Your task to perform on an android device: Open sound settings Image 0: 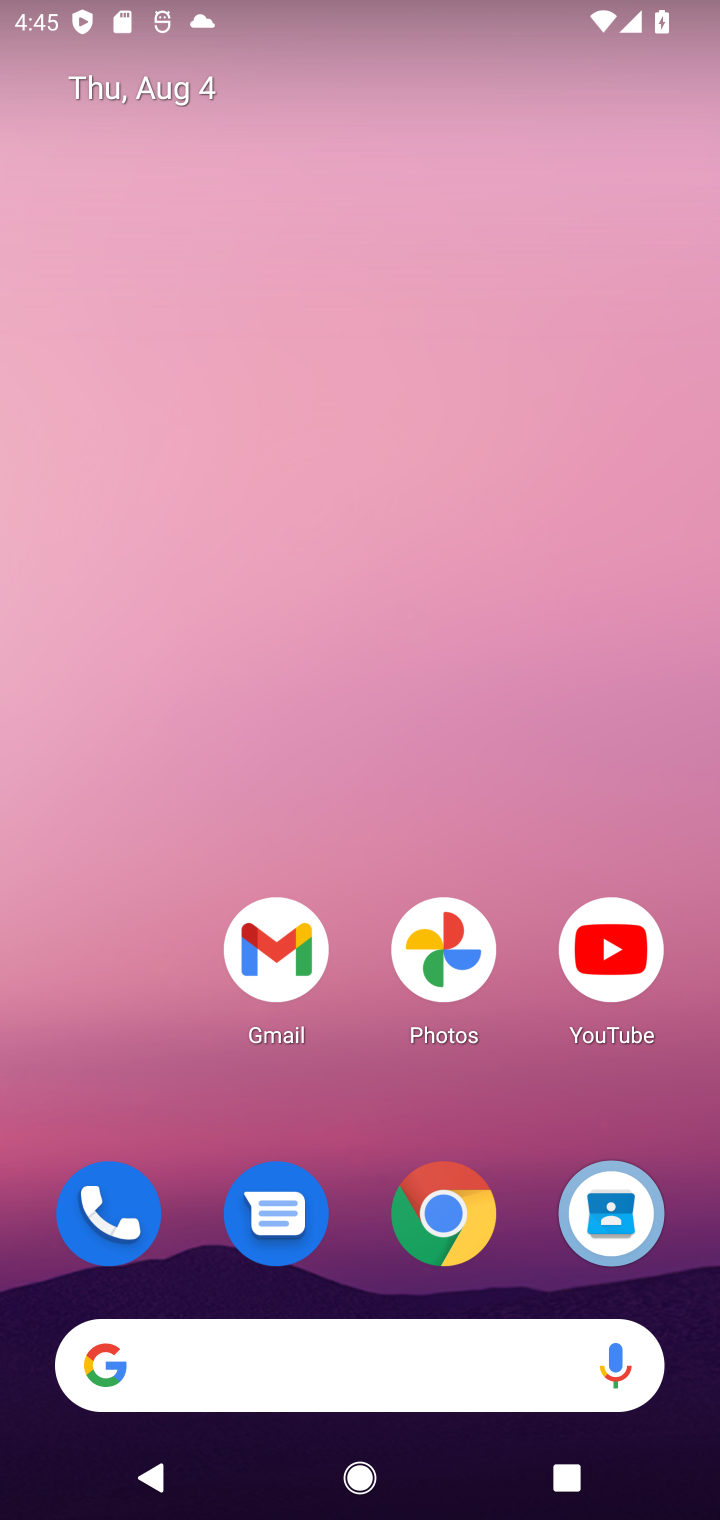
Step 0: drag from (256, 1387) to (453, 366)
Your task to perform on an android device: Open sound settings Image 1: 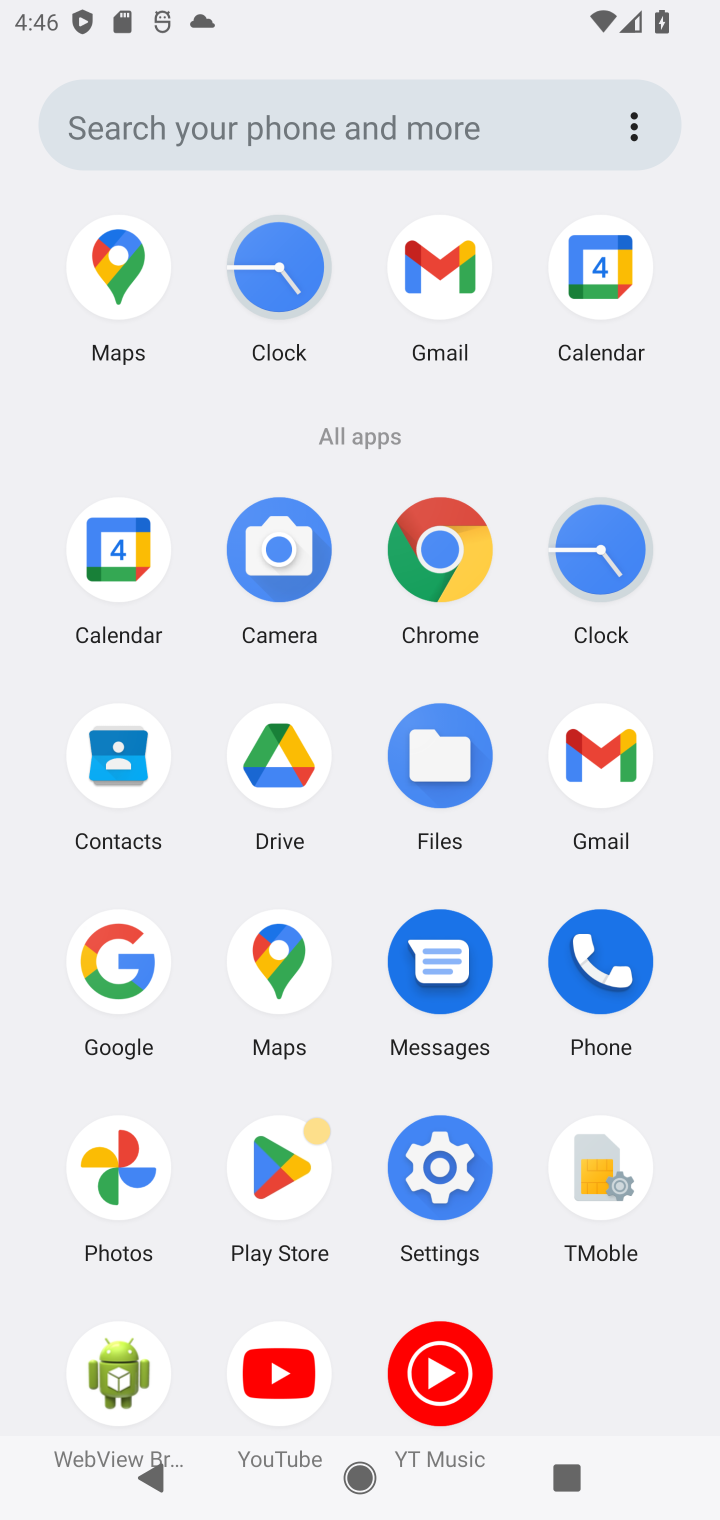
Step 1: click (437, 1163)
Your task to perform on an android device: Open sound settings Image 2: 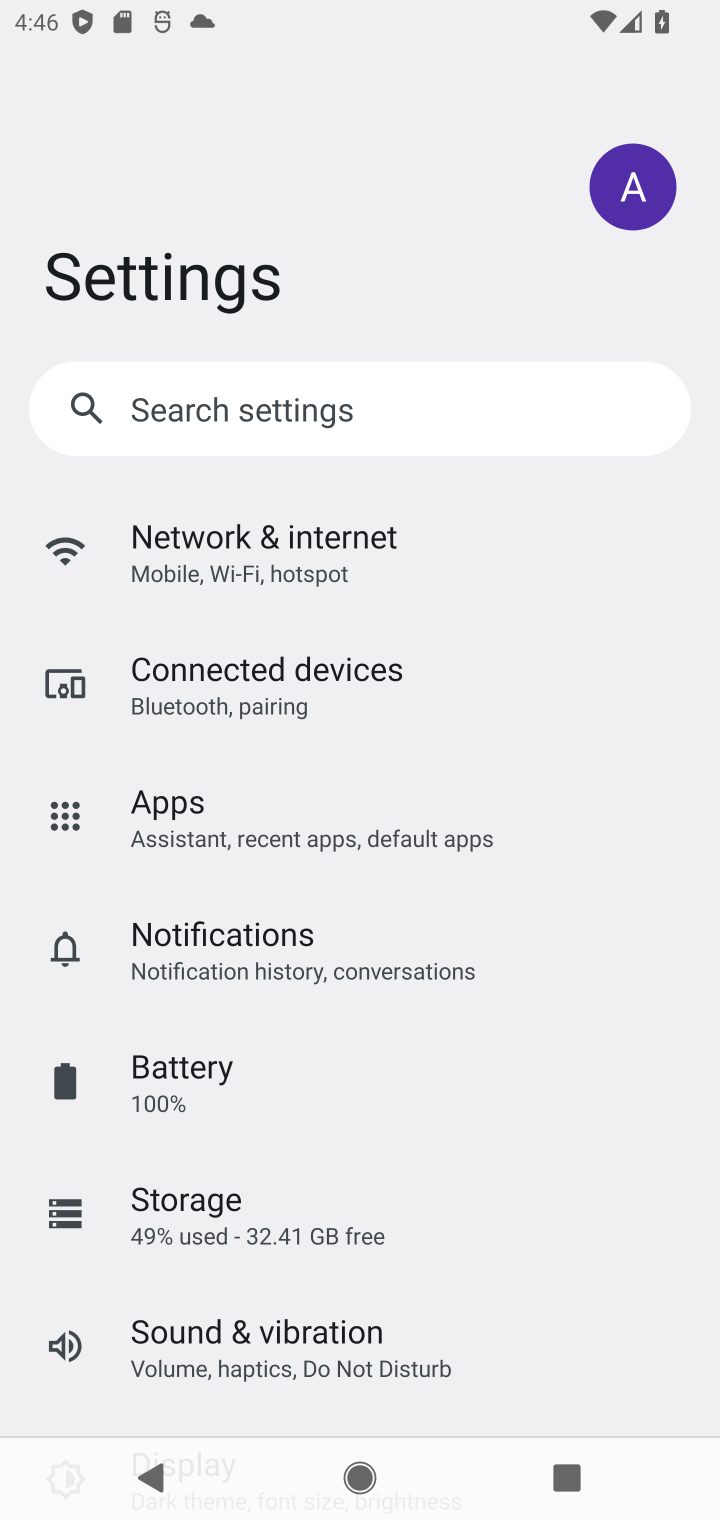
Step 2: drag from (243, 1180) to (236, 761)
Your task to perform on an android device: Open sound settings Image 3: 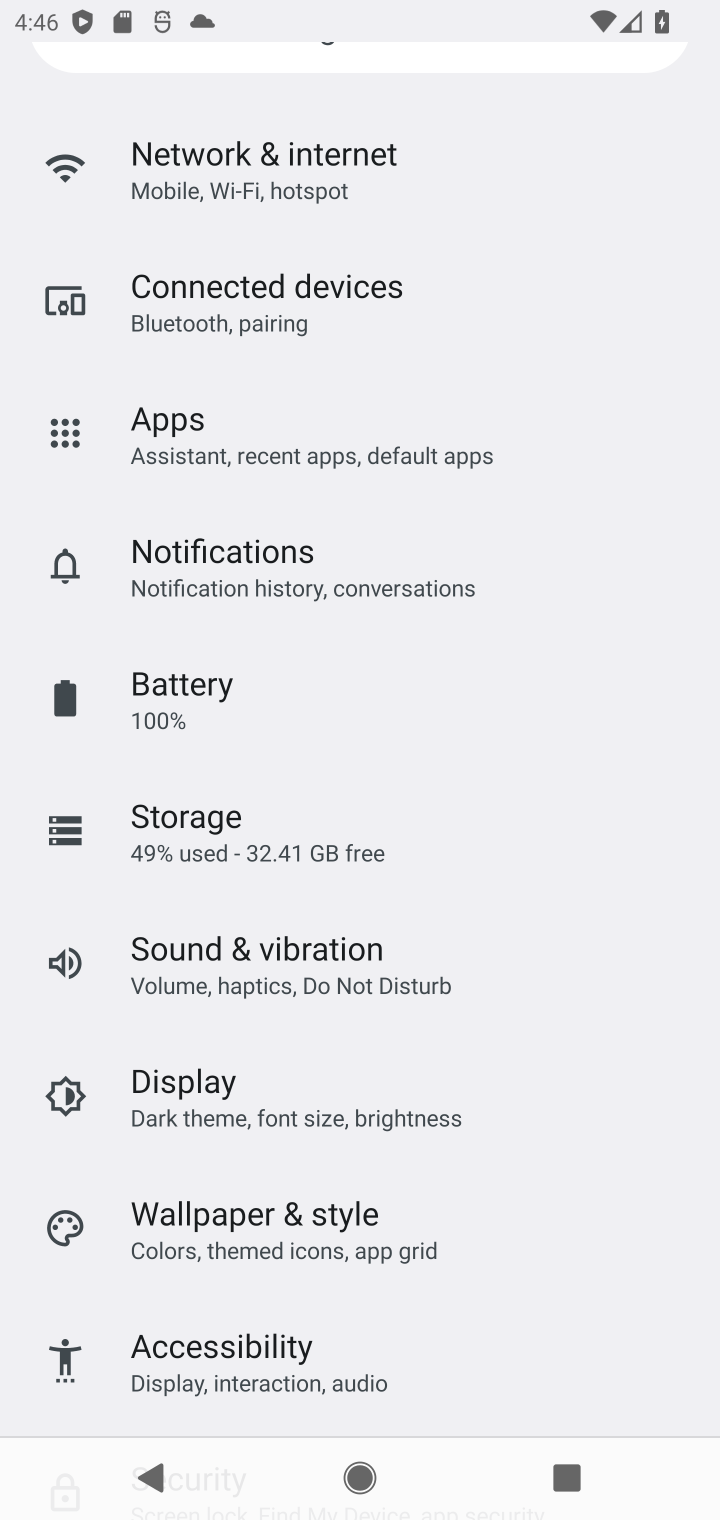
Step 3: click (305, 982)
Your task to perform on an android device: Open sound settings Image 4: 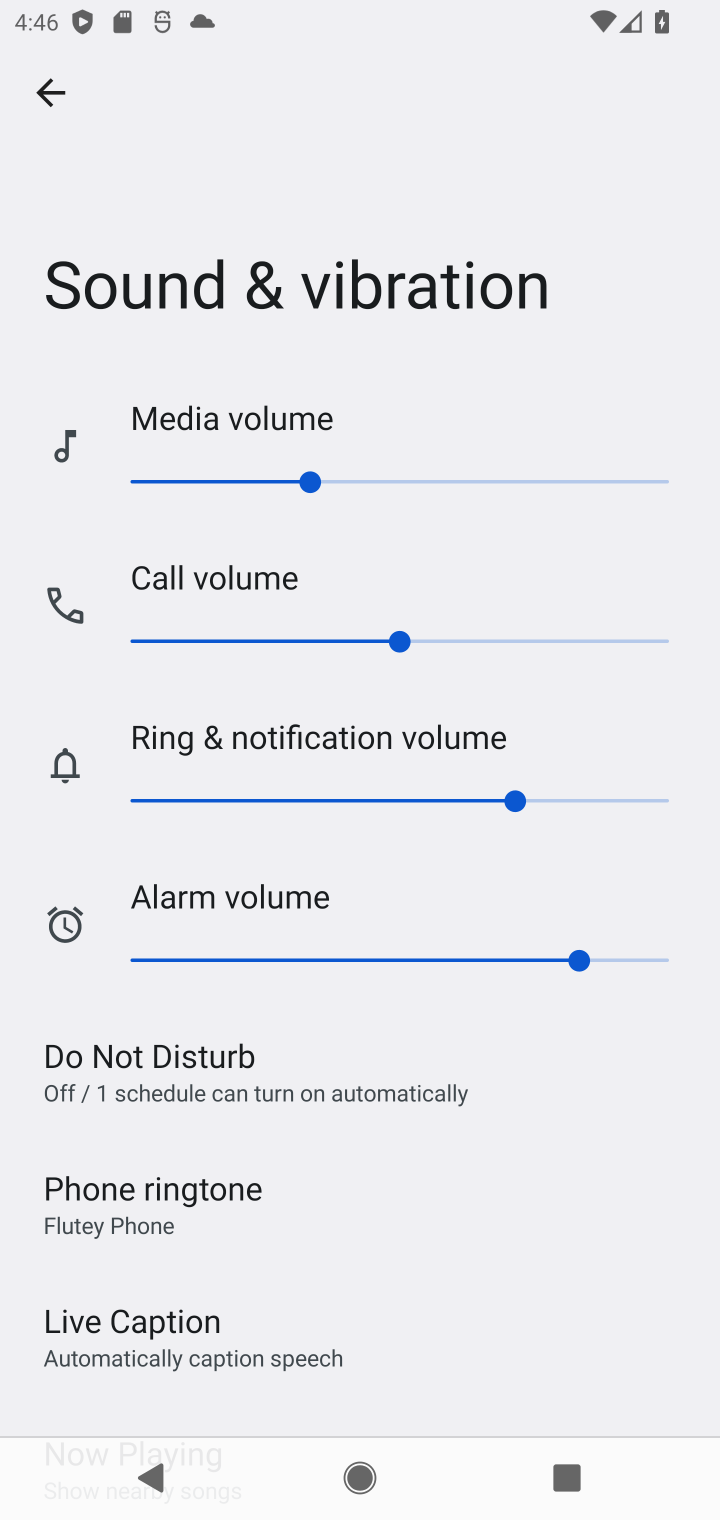
Step 4: task complete